Your task to perform on an android device: View the shopping cart on costco. Search for apple airpods on costco, select the first entry, add it to the cart, then select checkout. Image 0: 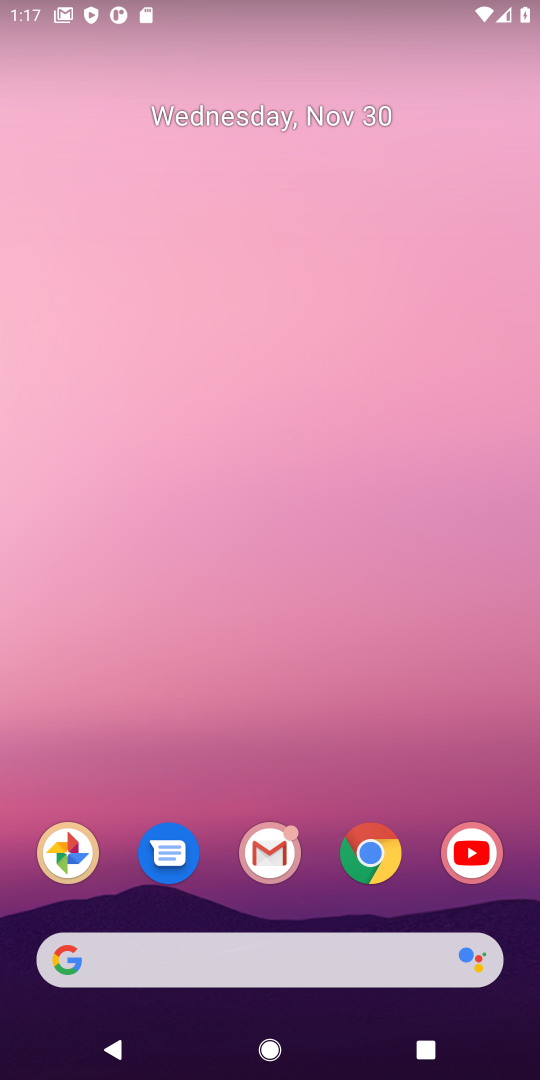
Step 0: click (360, 876)
Your task to perform on an android device: View the shopping cart on costco. Search for apple airpods on costco, select the first entry, add it to the cart, then select checkout. Image 1: 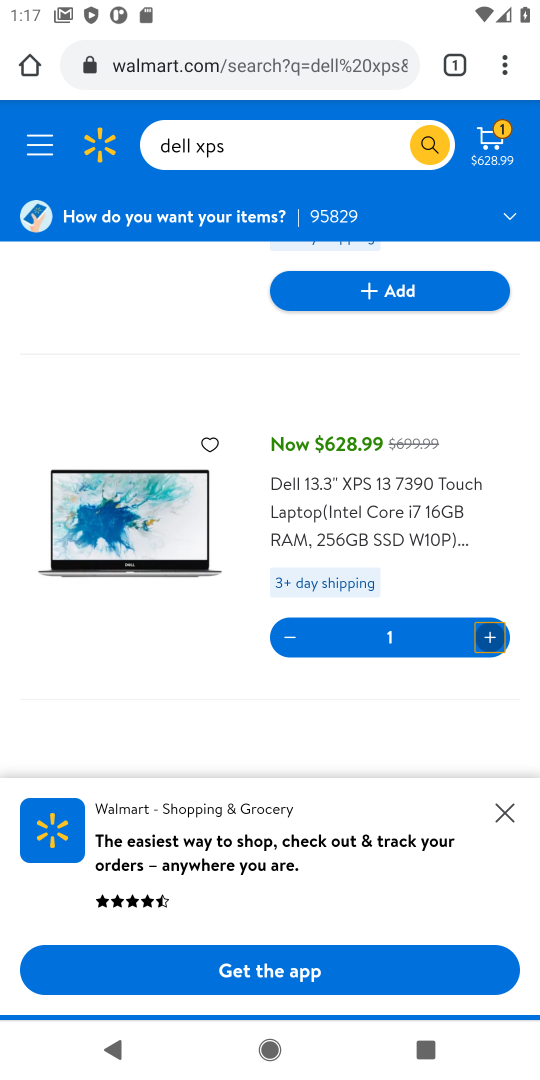
Step 1: click (235, 67)
Your task to perform on an android device: View the shopping cart on costco. Search for apple airpods on costco, select the first entry, add it to the cart, then select checkout. Image 2: 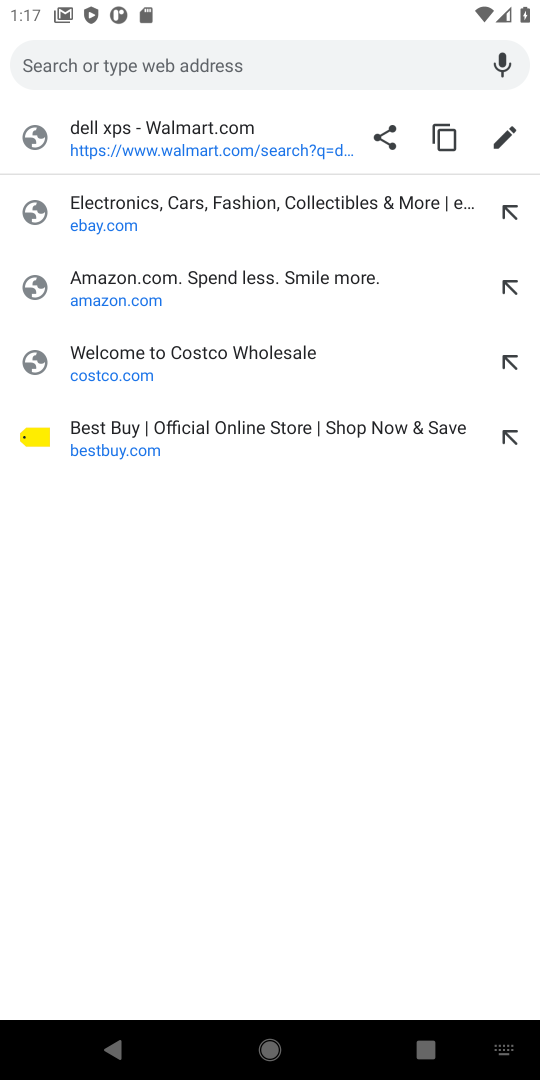
Step 2: click (102, 351)
Your task to perform on an android device: View the shopping cart on costco. Search for apple airpods on costco, select the first entry, add it to the cart, then select checkout. Image 3: 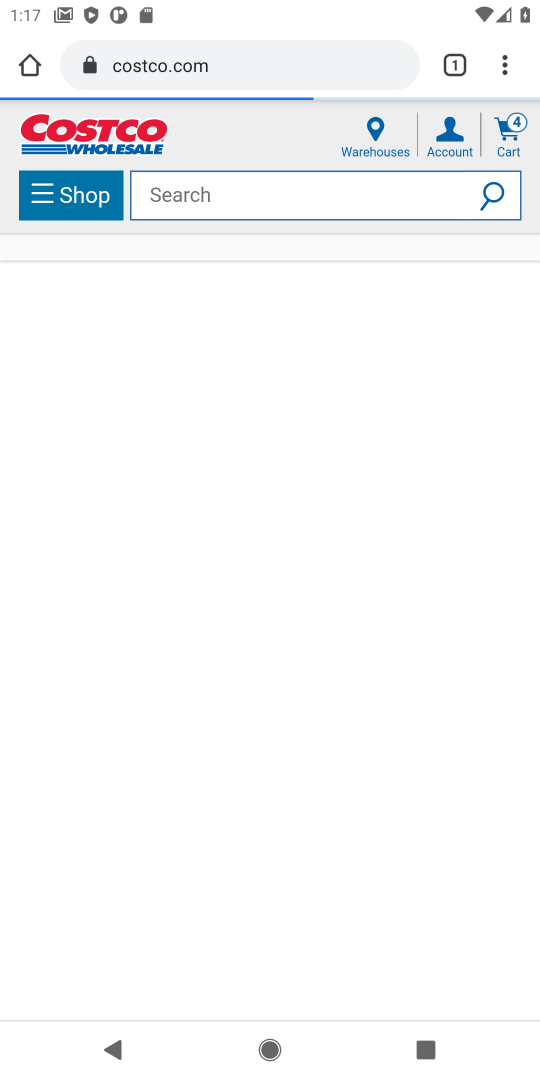
Step 3: click (509, 142)
Your task to perform on an android device: View the shopping cart on costco. Search for apple airpods on costco, select the first entry, add it to the cart, then select checkout. Image 4: 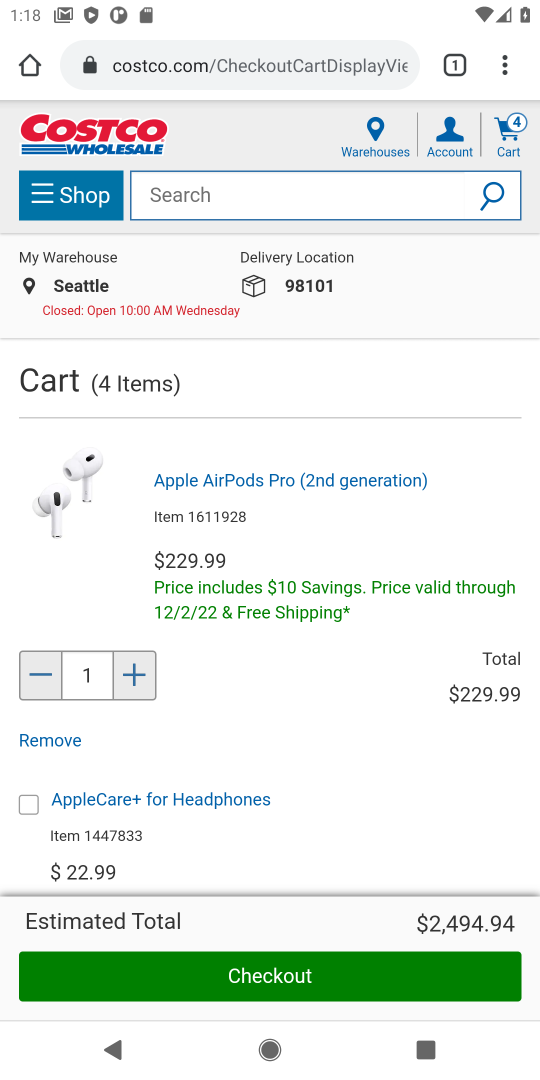
Step 4: click (171, 194)
Your task to perform on an android device: View the shopping cart on costco. Search for apple airpods on costco, select the first entry, add it to the cart, then select checkout. Image 5: 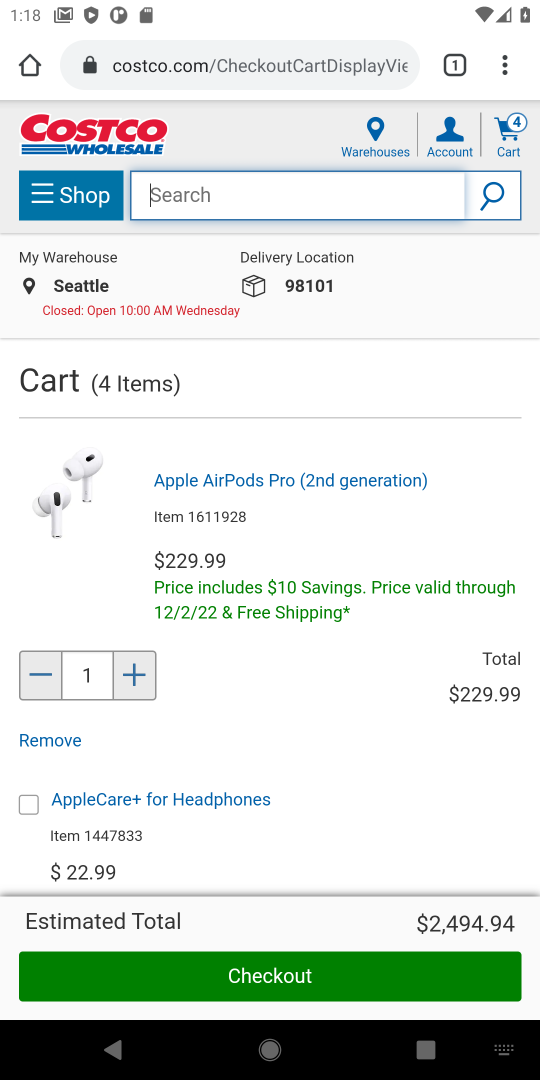
Step 5: type "apple airpods "
Your task to perform on an android device: View the shopping cart on costco. Search for apple airpods on costco, select the first entry, add it to the cart, then select checkout. Image 6: 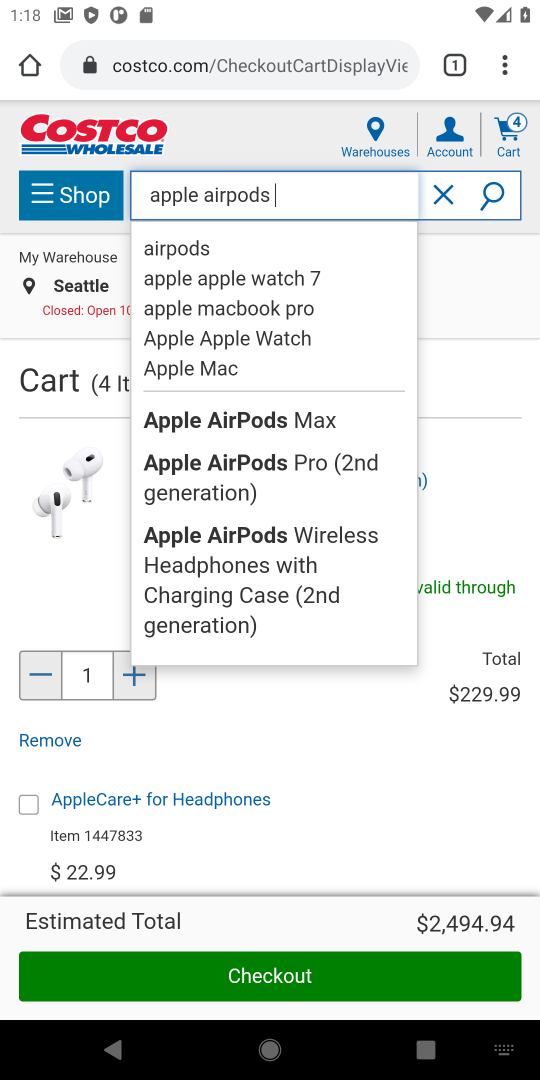
Step 6: click (487, 185)
Your task to perform on an android device: View the shopping cart on costco. Search for apple airpods on costco, select the first entry, add it to the cart, then select checkout. Image 7: 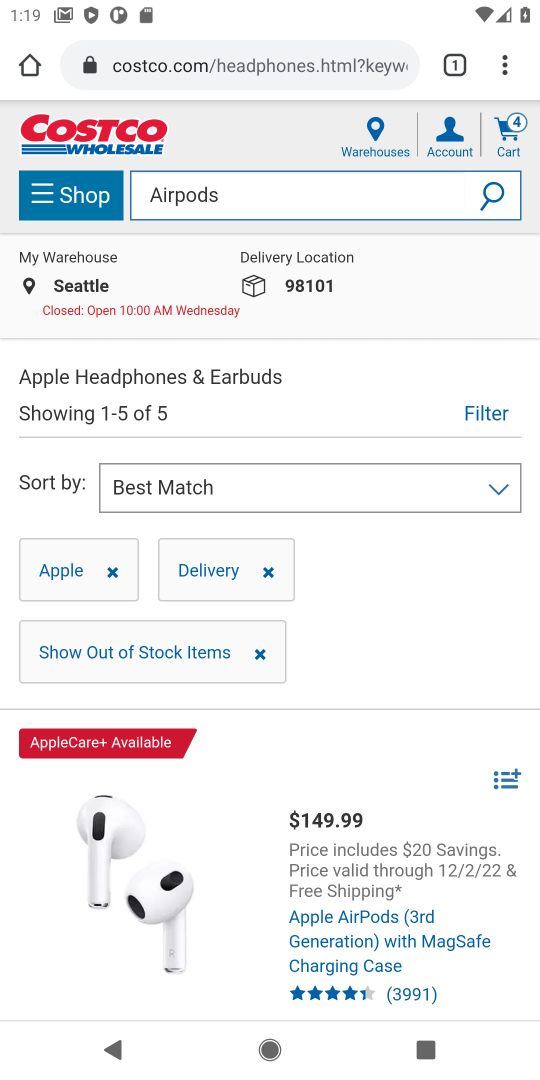
Step 7: drag from (261, 681) to (258, 494)
Your task to perform on an android device: View the shopping cart on costco. Search for apple airpods on costco, select the first entry, add it to the cart, then select checkout. Image 8: 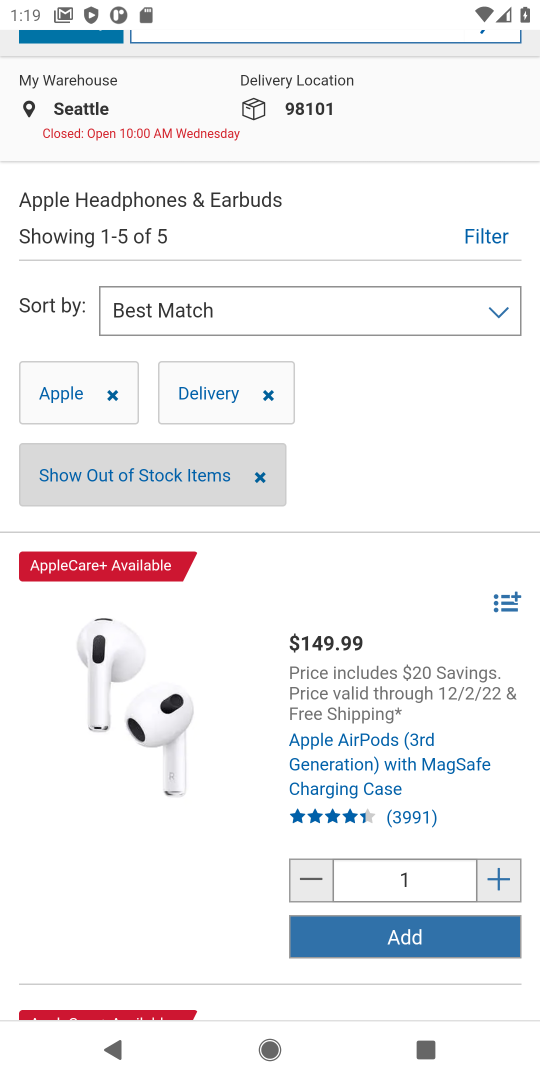
Step 8: click (344, 708)
Your task to perform on an android device: View the shopping cart on costco. Search for apple airpods on costco, select the first entry, add it to the cart, then select checkout. Image 9: 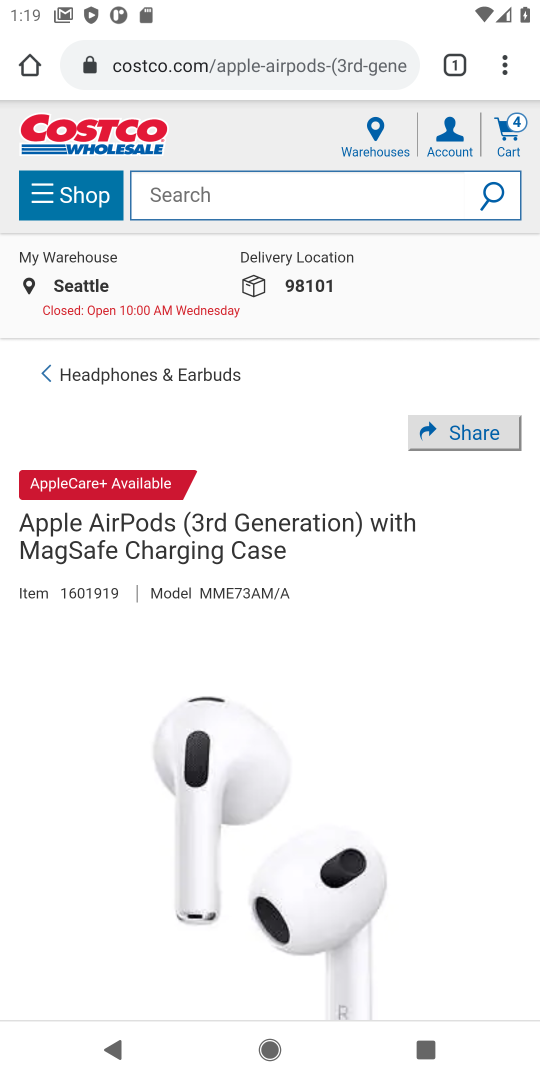
Step 9: drag from (362, 823) to (304, 338)
Your task to perform on an android device: View the shopping cart on costco. Search for apple airpods on costco, select the first entry, add it to the cart, then select checkout. Image 10: 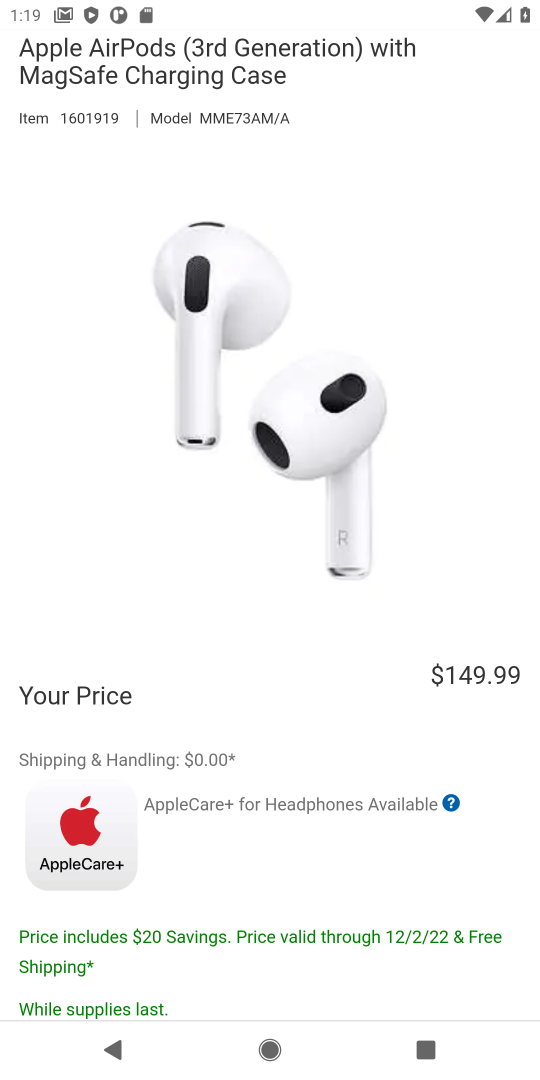
Step 10: drag from (239, 368) to (235, 307)
Your task to perform on an android device: View the shopping cart on costco. Search for apple airpods on costco, select the first entry, add it to the cart, then select checkout. Image 11: 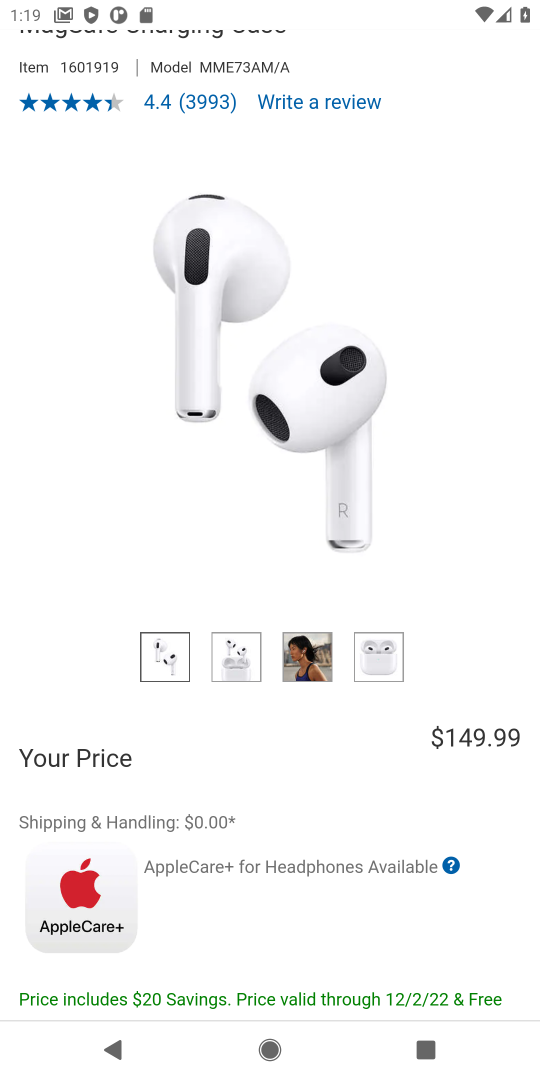
Step 11: drag from (242, 747) to (220, 362)
Your task to perform on an android device: View the shopping cart on costco. Search for apple airpods on costco, select the first entry, add it to the cart, then select checkout. Image 12: 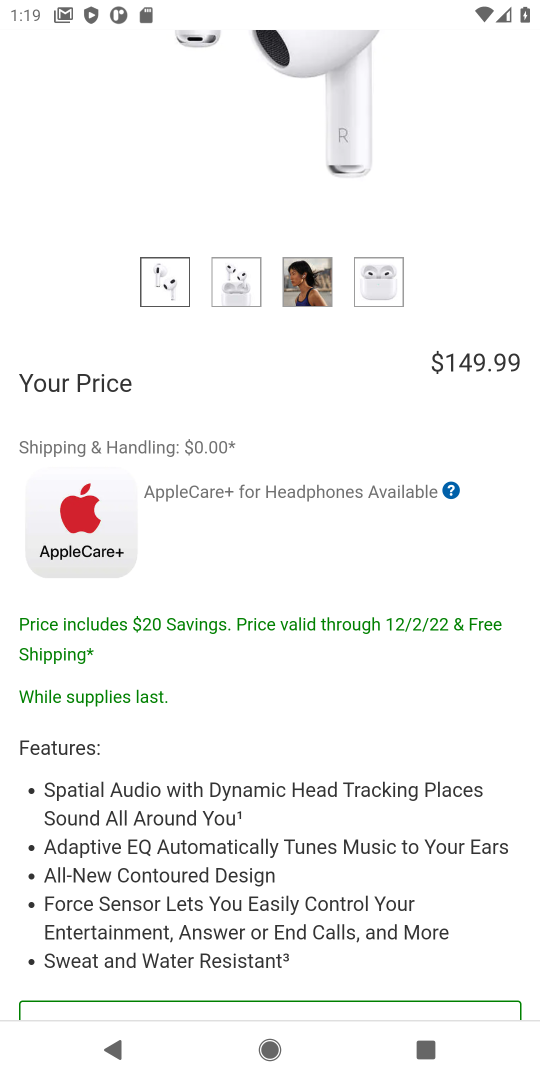
Step 12: drag from (237, 708) to (215, 366)
Your task to perform on an android device: View the shopping cart on costco. Search for apple airpods on costco, select the first entry, add it to the cart, then select checkout. Image 13: 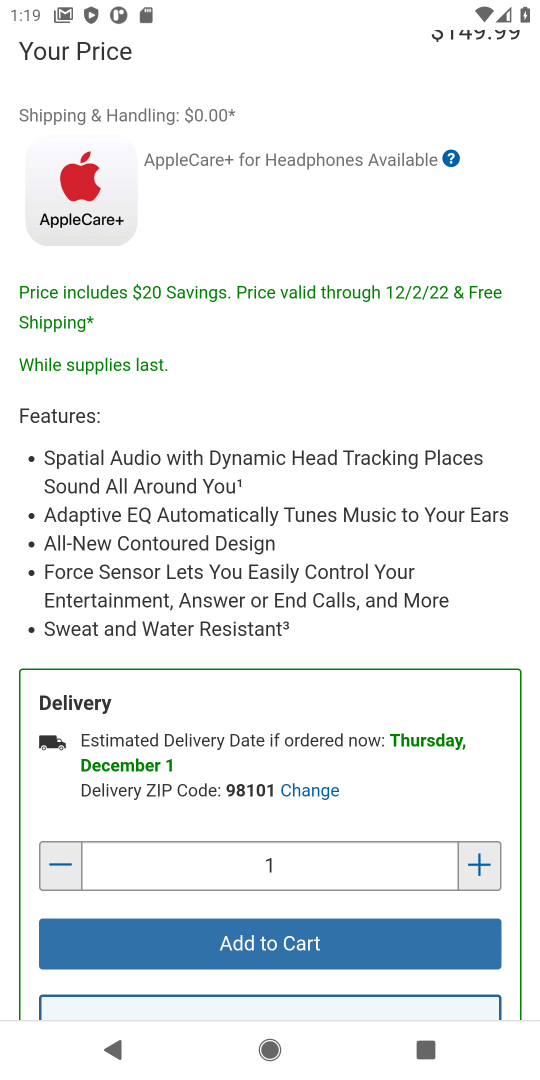
Step 13: click (240, 944)
Your task to perform on an android device: View the shopping cart on costco. Search for apple airpods on costco, select the first entry, add it to the cart, then select checkout. Image 14: 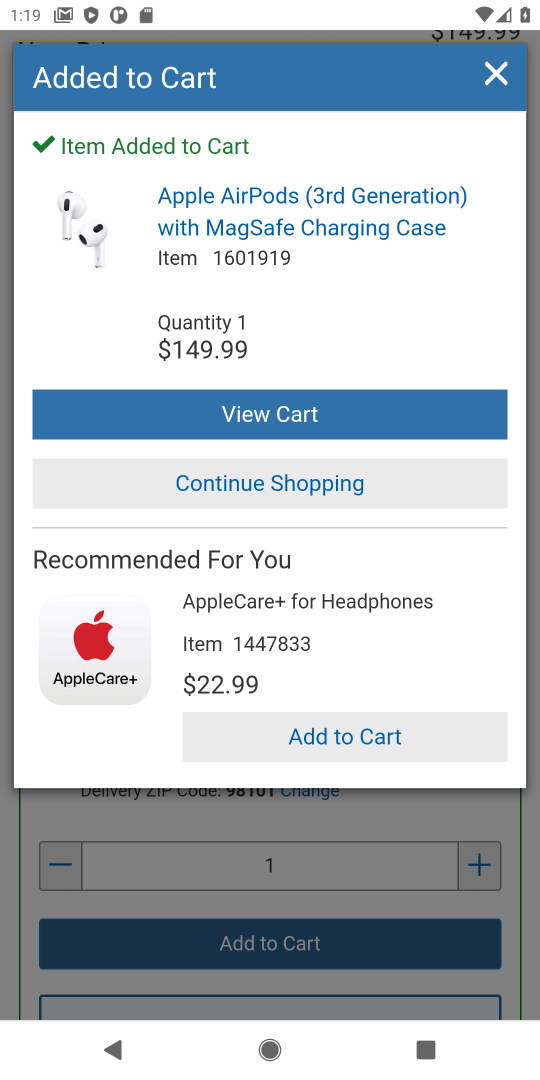
Step 14: click (264, 413)
Your task to perform on an android device: View the shopping cart on costco. Search for apple airpods on costco, select the first entry, add it to the cart, then select checkout. Image 15: 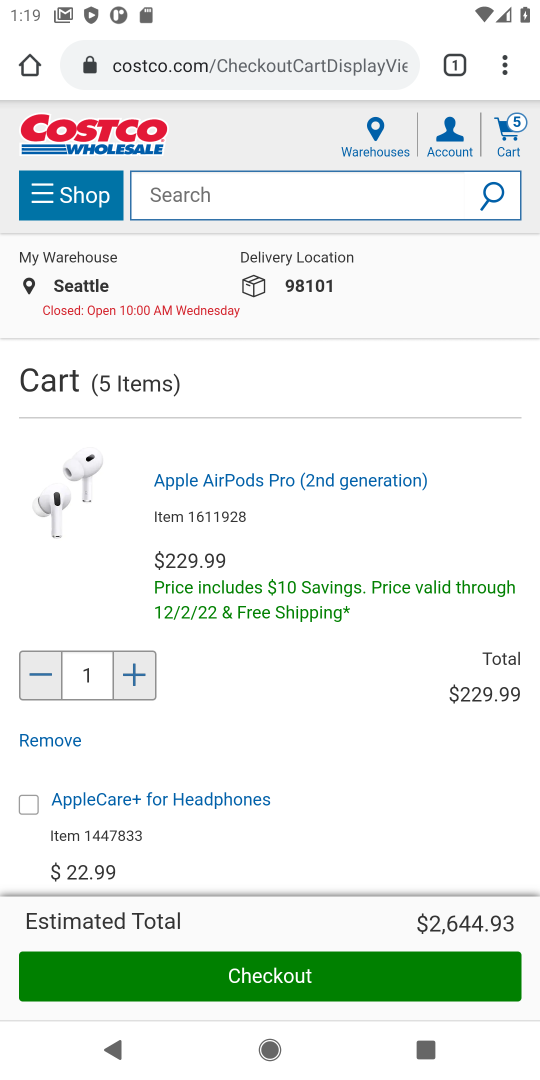
Step 15: click (242, 982)
Your task to perform on an android device: View the shopping cart on costco. Search for apple airpods on costco, select the first entry, add it to the cart, then select checkout. Image 16: 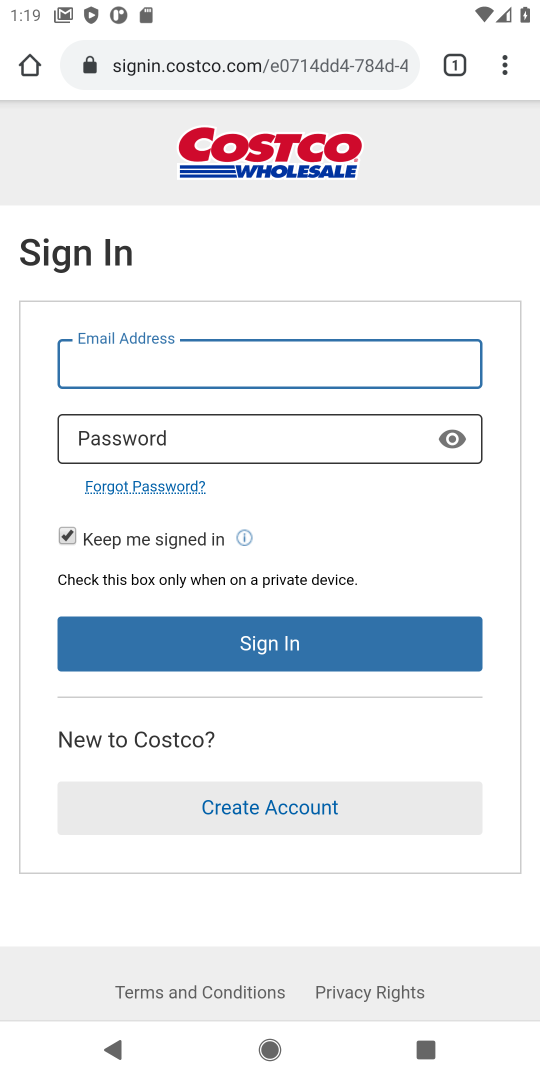
Step 16: task complete